Your task to perform on an android device: turn off priority inbox in the gmail app Image 0: 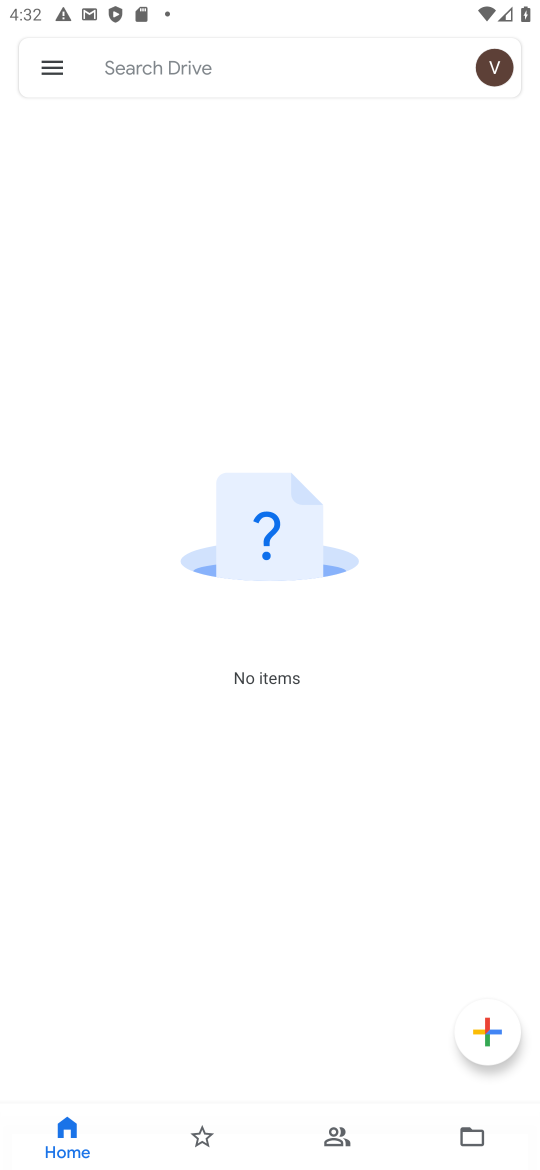
Step 0: press home button
Your task to perform on an android device: turn off priority inbox in the gmail app Image 1: 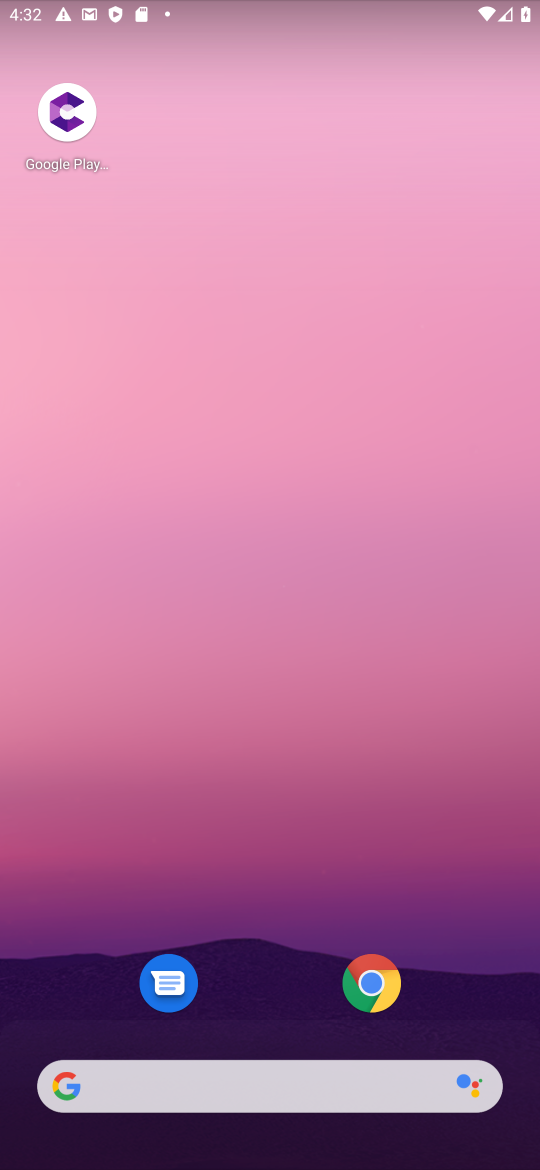
Step 1: drag from (281, 934) to (320, 348)
Your task to perform on an android device: turn off priority inbox in the gmail app Image 2: 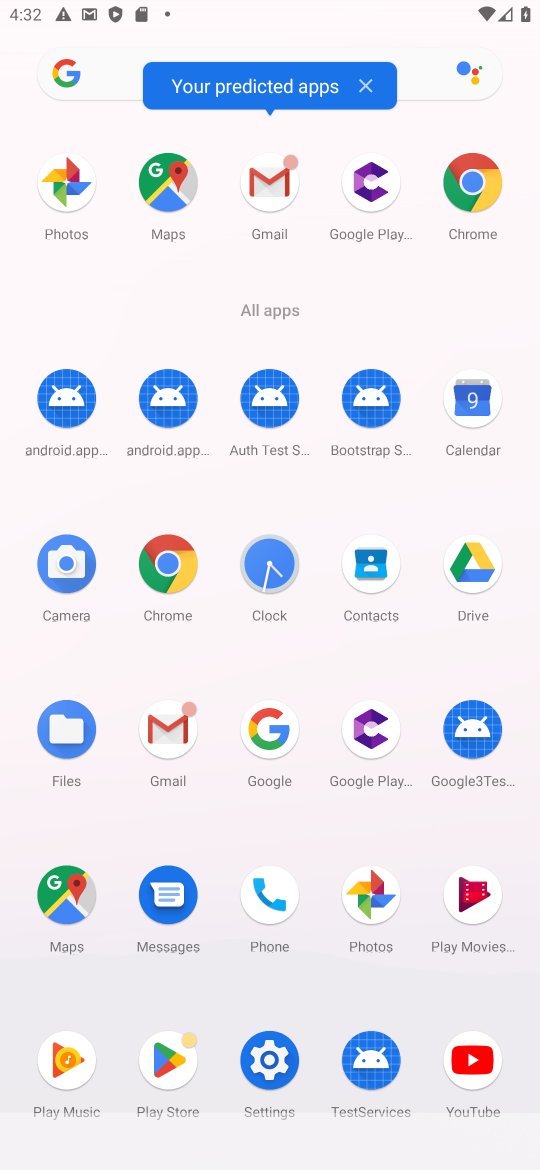
Step 2: click (269, 178)
Your task to perform on an android device: turn off priority inbox in the gmail app Image 3: 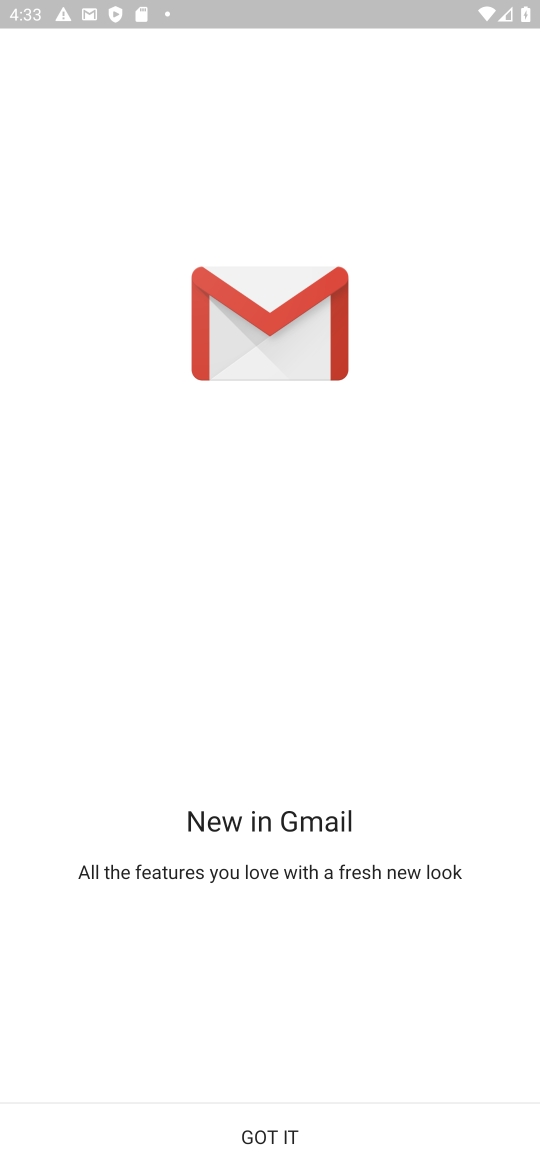
Step 3: click (267, 1141)
Your task to perform on an android device: turn off priority inbox in the gmail app Image 4: 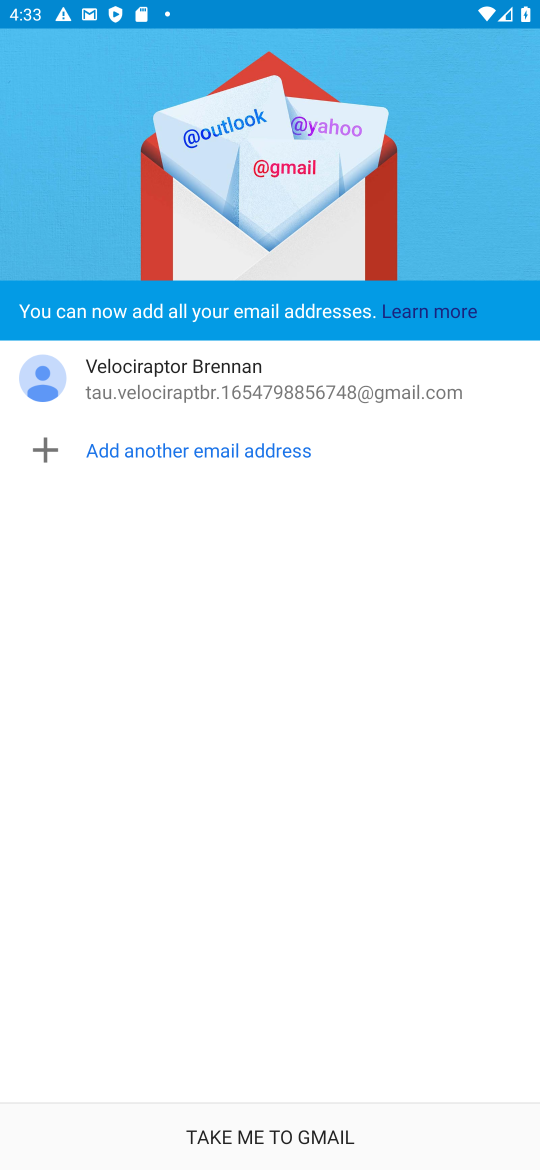
Step 4: click (277, 1125)
Your task to perform on an android device: turn off priority inbox in the gmail app Image 5: 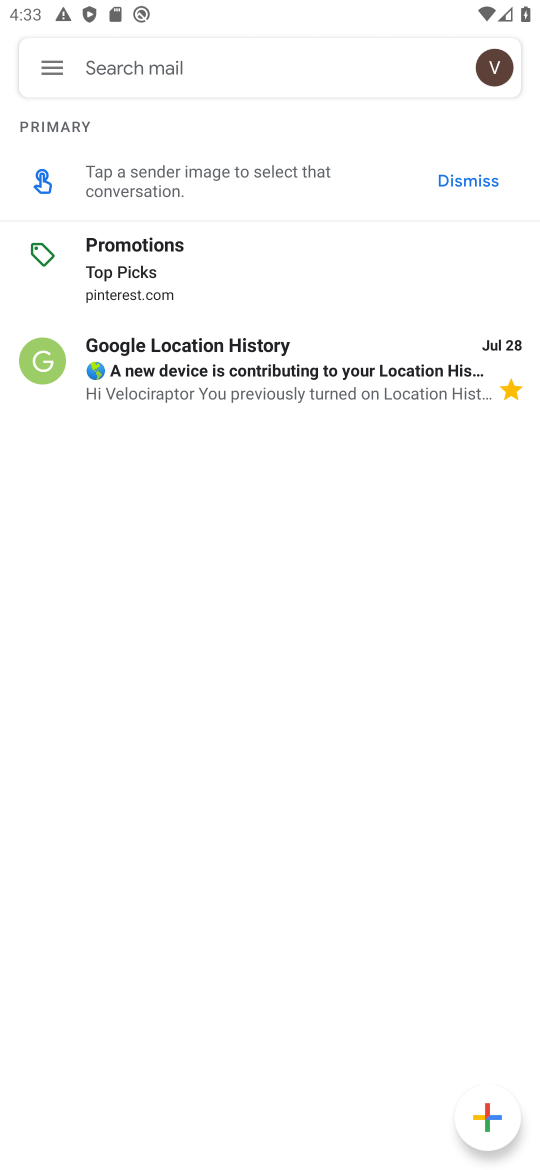
Step 5: click (49, 69)
Your task to perform on an android device: turn off priority inbox in the gmail app Image 6: 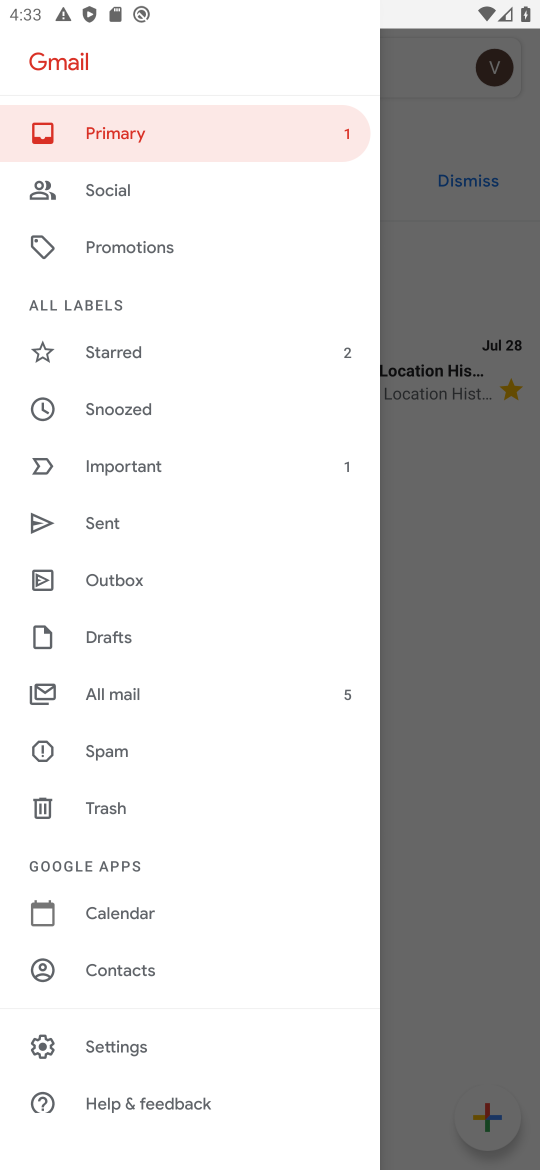
Step 6: click (126, 1039)
Your task to perform on an android device: turn off priority inbox in the gmail app Image 7: 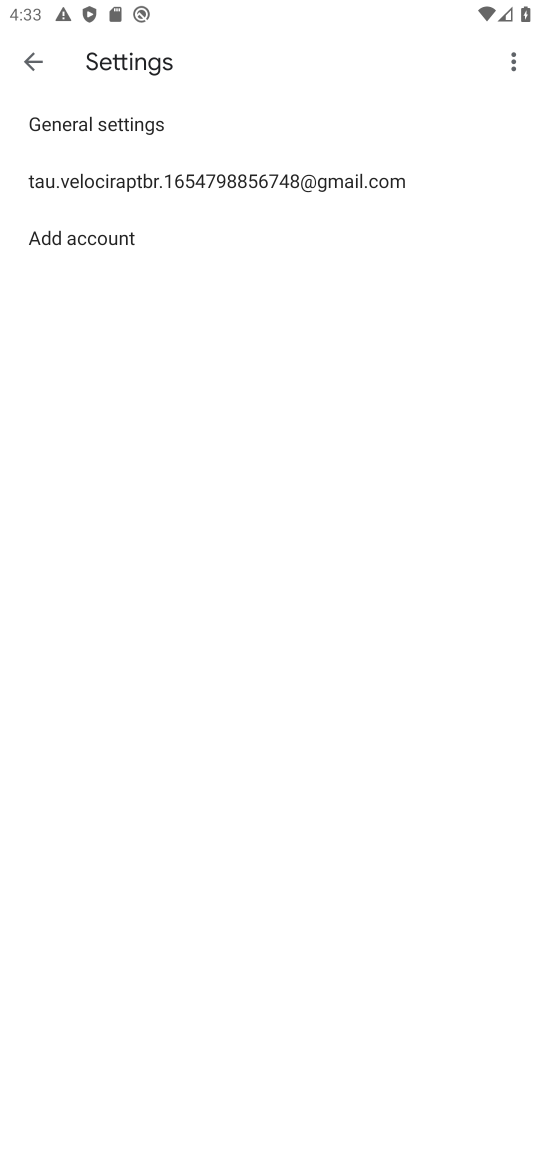
Step 7: click (138, 172)
Your task to perform on an android device: turn off priority inbox in the gmail app Image 8: 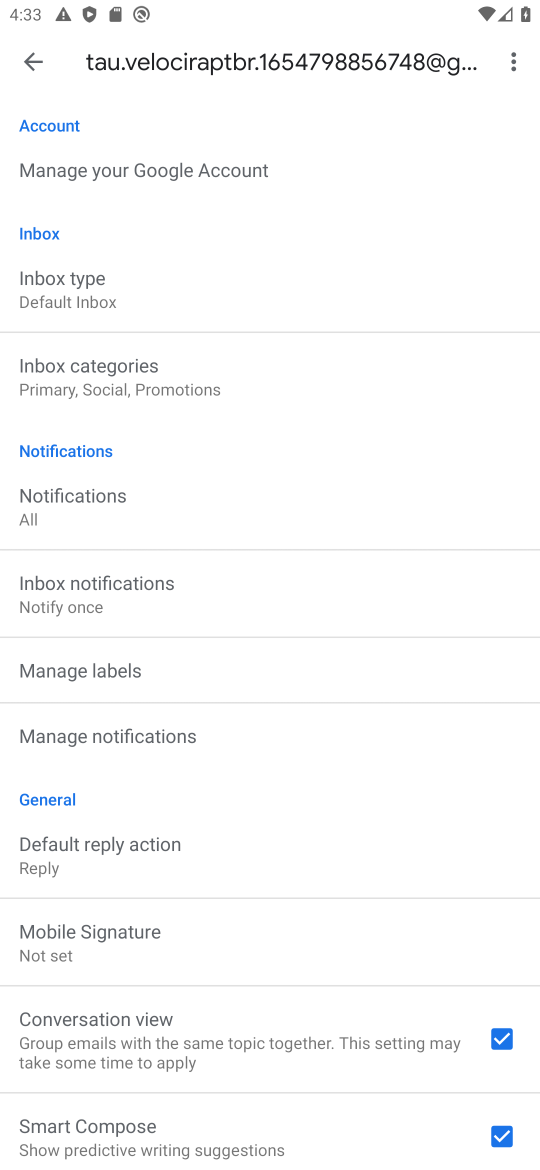
Step 8: click (62, 276)
Your task to perform on an android device: turn off priority inbox in the gmail app Image 9: 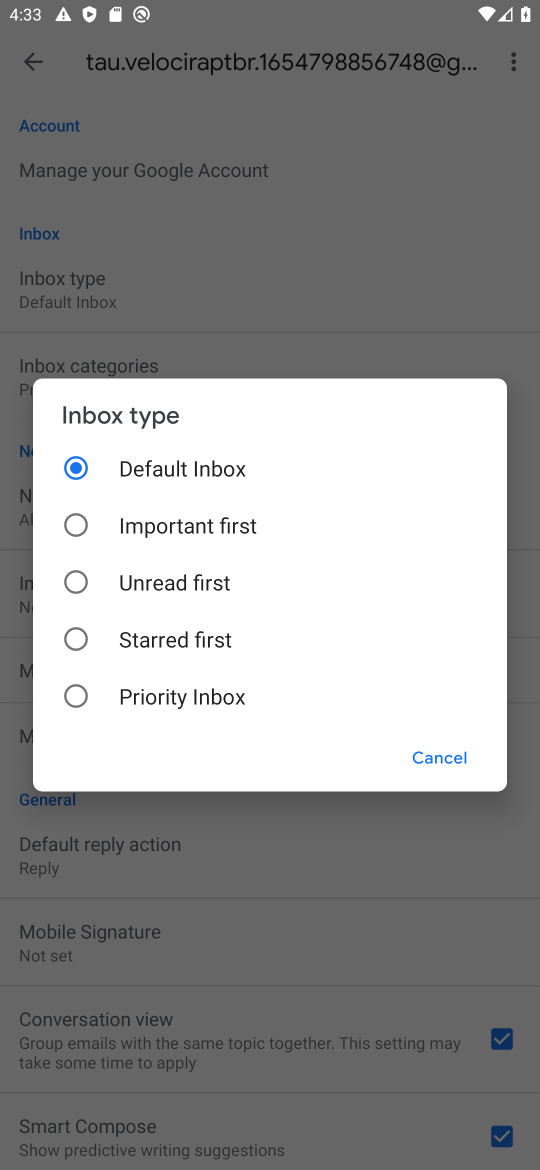
Step 9: task complete